Your task to perform on an android device: toggle improve location accuracy Image 0: 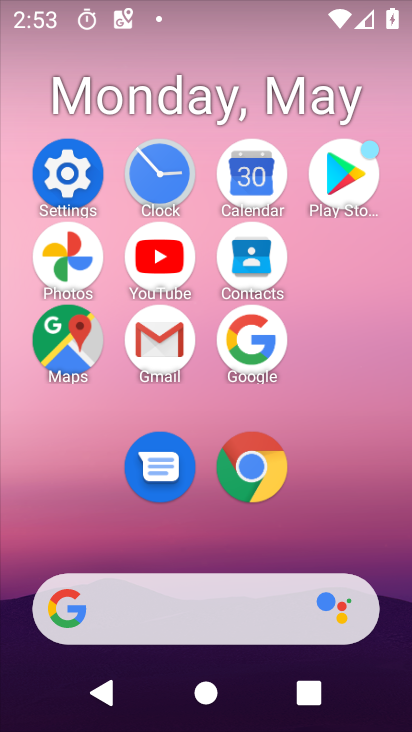
Step 0: click (83, 152)
Your task to perform on an android device: toggle improve location accuracy Image 1: 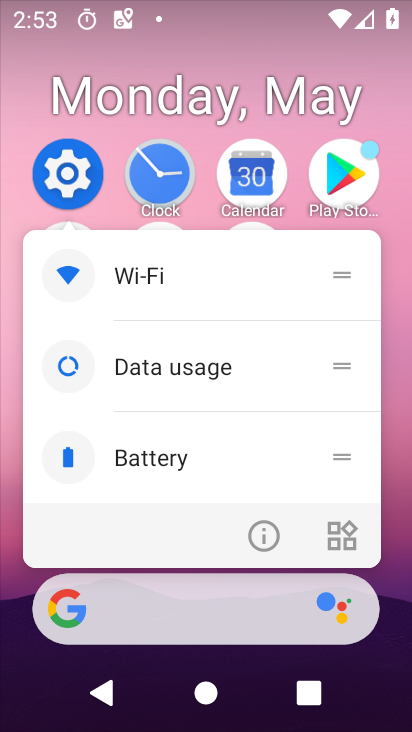
Step 1: click (131, 158)
Your task to perform on an android device: toggle improve location accuracy Image 2: 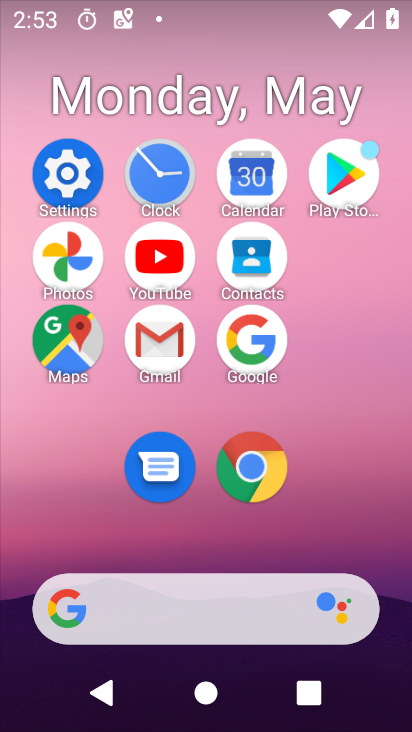
Step 2: click (87, 161)
Your task to perform on an android device: toggle improve location accuracy Image 3: 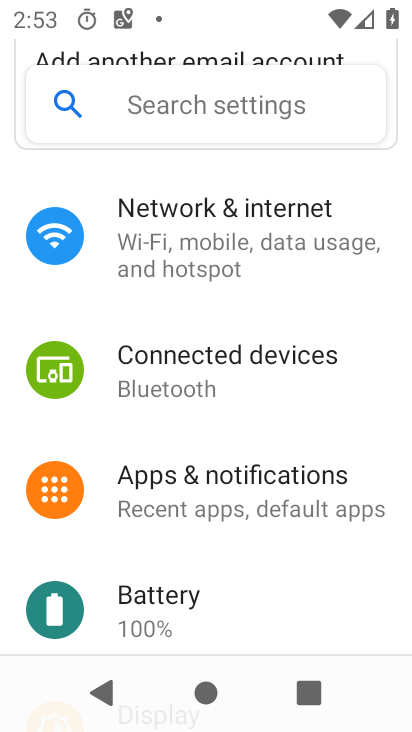
Step 3: drag from (304, 559) to (284, 209)
Your task to perform on an android device: toggle improve location accuracy Image 4: 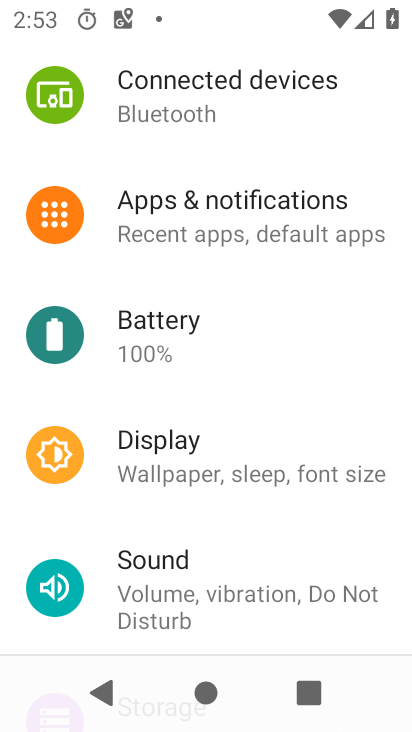
Step 4: drag from (265, 447) to (271, 116)
Your task to perform on an android device: toggle improve location accuracy Image 5: 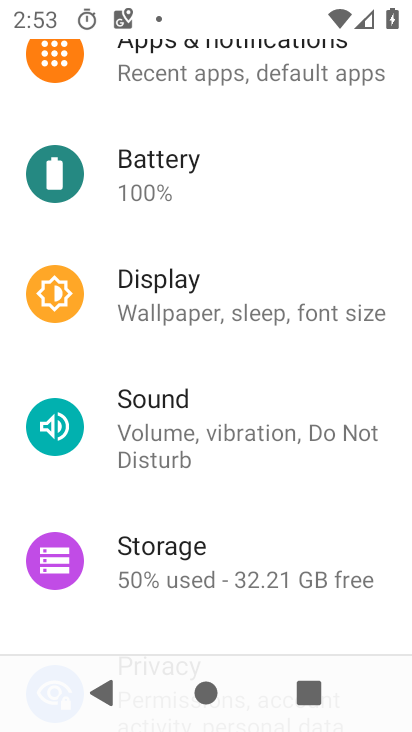
Step 5: drag from (274, 459) to (262, 174)
Your task to perform on an android device: toggle improve location accuracy Image 6: 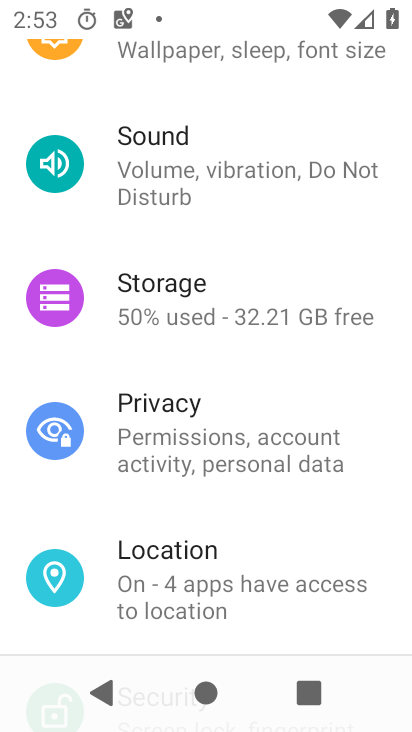
Step 6: drag from (250, 531) to (240, 123)
Your task to perform on an android device: toggle improve location accuracy Image 7: 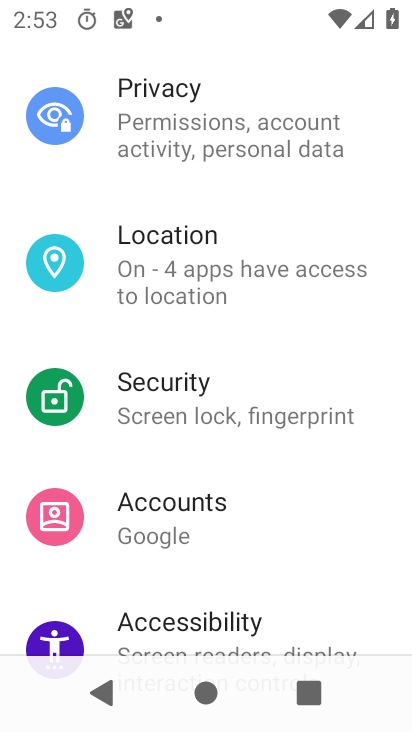
Step 7: click (202, 293)
Your task to perform on an android device: toggle improve location accuracy Image 8: 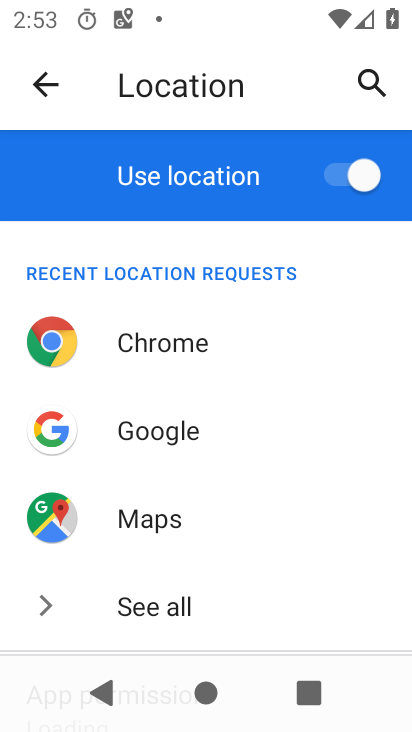
Step 8: drag from (236, 595) to (268, 120)
Your task to perform on an android device: toggle improve location accuracy Image 9: 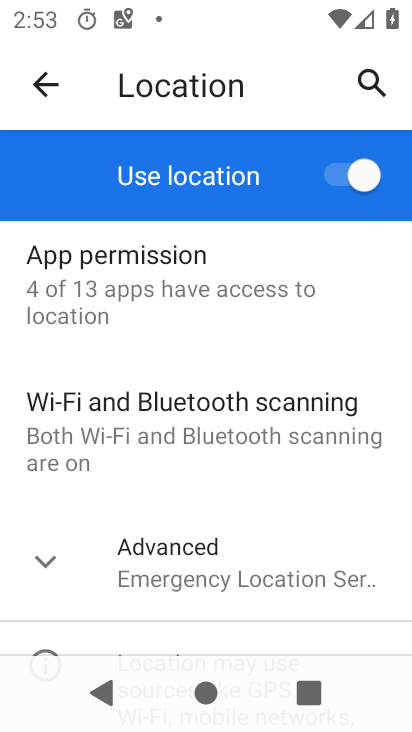
Step 9: drag from (290, 501) to (259, 185)
Your task to perform on an android device: toggle improve location accuracy Image 10: 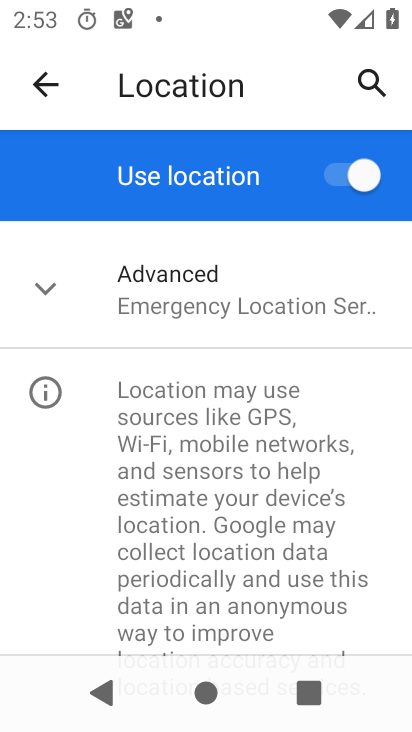
Step 10: click (248, 319)
Your task to perform on an android device: toggle improve location accuracy Image 11: 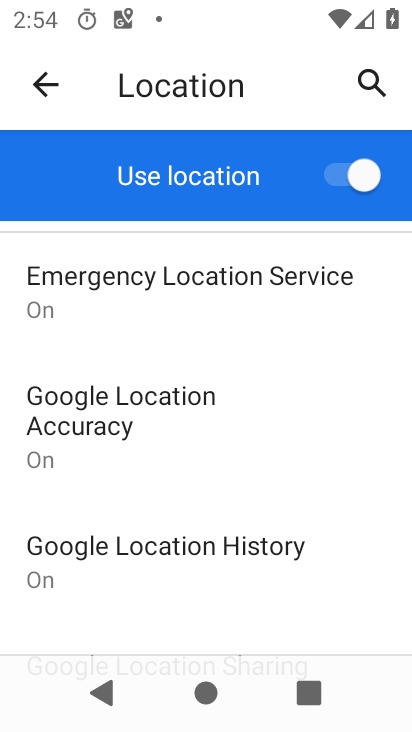
Step 11: drag from (208, 590) to (172, 313)
Your task to perform on an android device: toggle improve location accuracy Image 12: 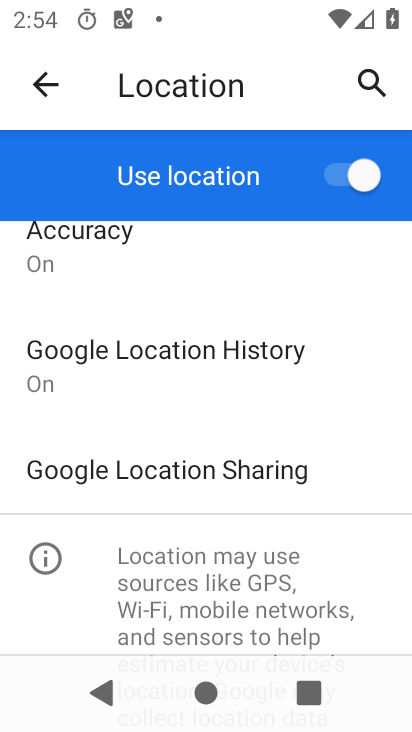
Step 12: drag from (308, 323) to (295, 616)
Your task to perform on an android device: toggle improve location accuracy Image 13: 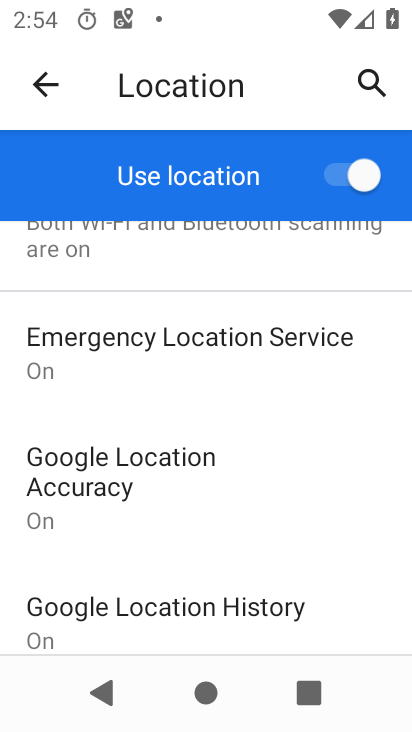
Step 13: click (135, 459)
Your task to perform on an android device: toggle improve location accuracy Image 14: 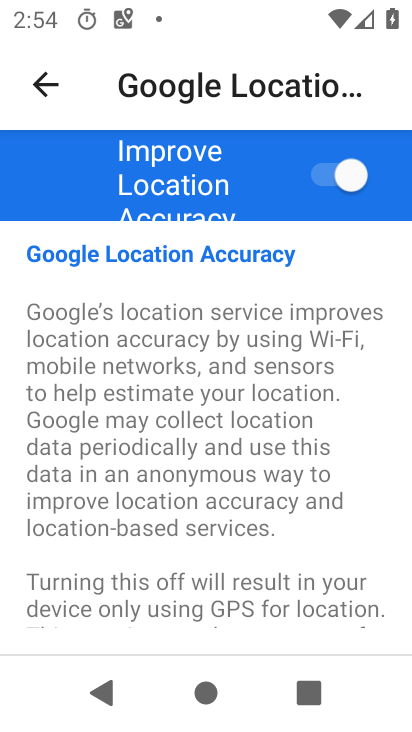
Step 14: click (336, 172)
Your task to perform on an android device: toggle improve location accuracy Image 15: 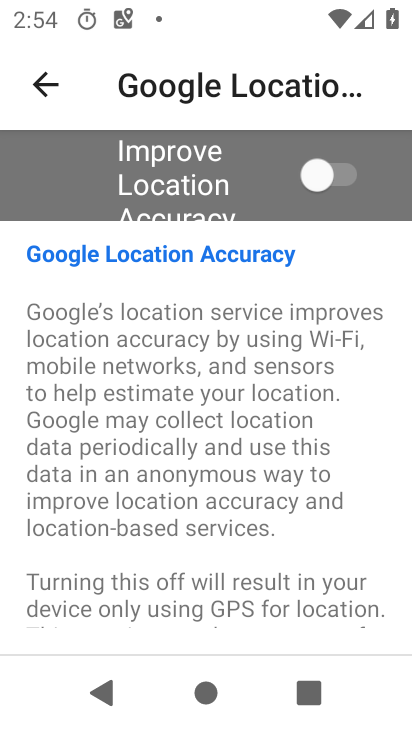
Step 15: task complete